Your task to perform on an android device: What's the weather? Image 0: 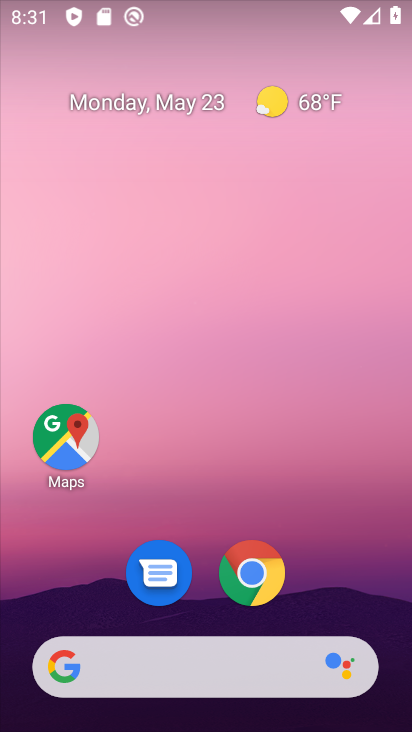
Step 0: drag from (170, 513) to (231, 201)
Your task to perform on an android device: What's the weather? Image 1: 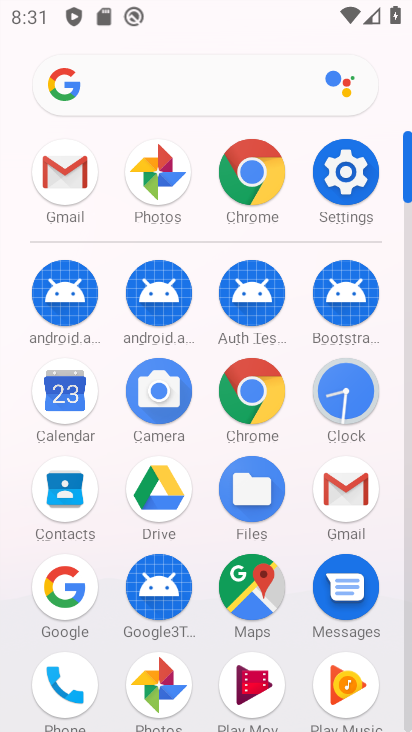
Step 1: press back button
Your task to perform on an android device: What's the weather? Image 2: 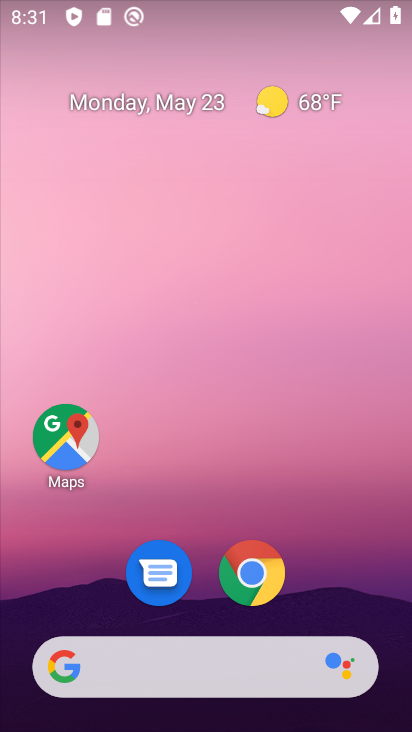
Step 2: click (322, 99)
Your task to perform on an android device: What's the weather? Image 3: 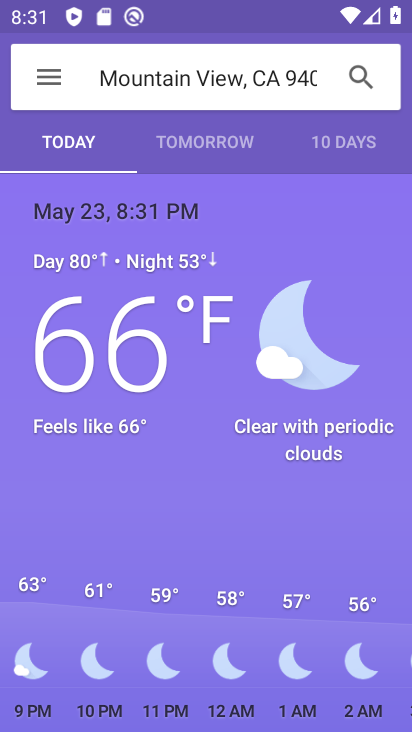
Step 3: task complete